Your task to perform on an android device: Open battery settings Image 0: 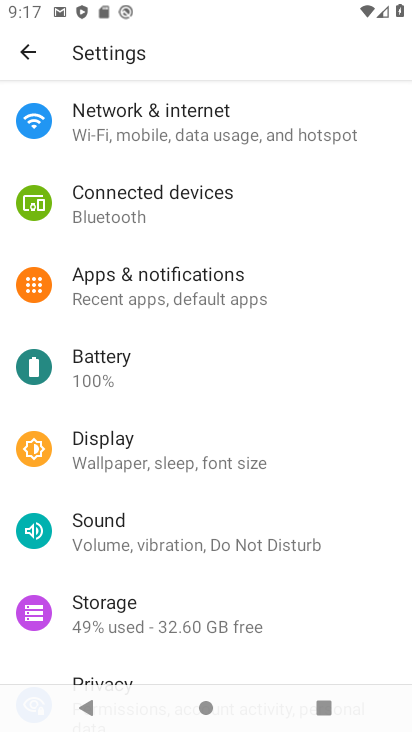
Step 0: click (102, 355)
Your task to perform on an android device: Open battery settings Image 1: 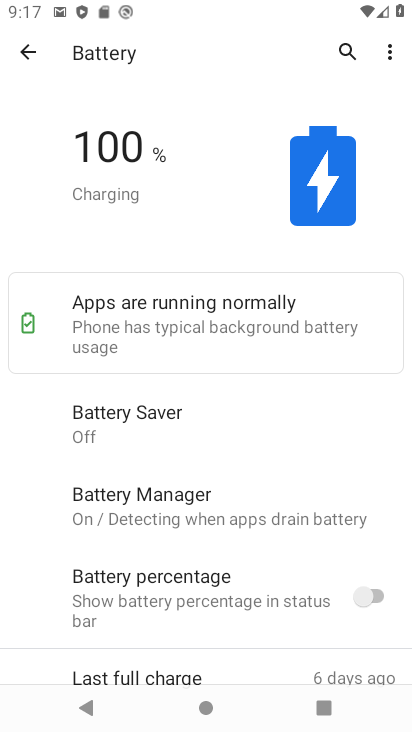
Step 1: task complete